Your task to perform on an android device: find which apps use the phone's location Image 0: 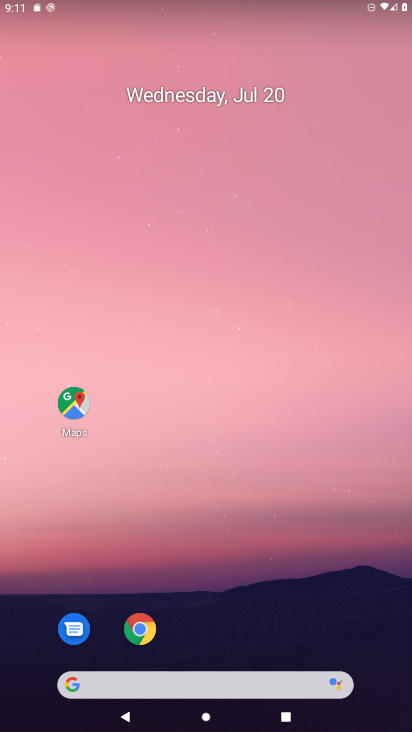
Step 0: drag from (391, 637) to (341, 88)
Your task to perform on an android device: find which apps use the phone's location Image 1: 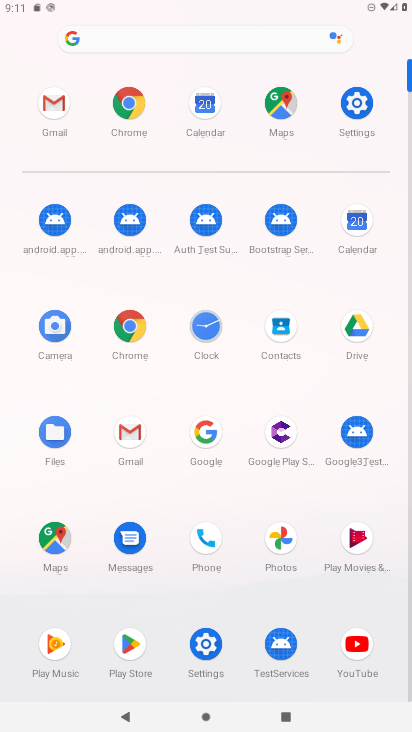
Step 1: click (205, 644)
Your task to perform on an android device: find which apps use the phone's location Image 2: 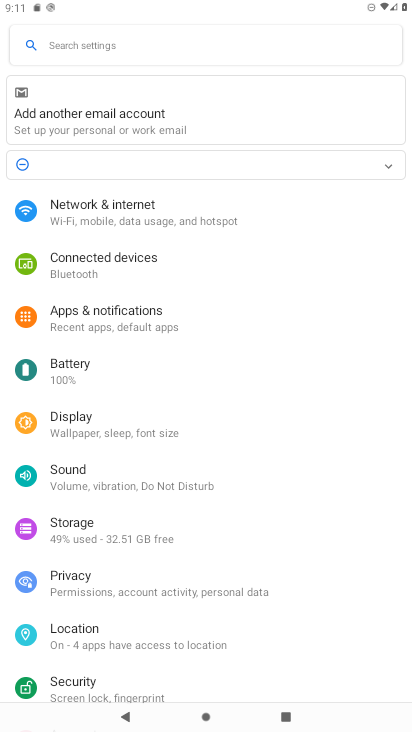
Step 2: drag from (335, 640) to (309, 419)
Your task to perform on an android device: find which apps use the phone's location Image 3: 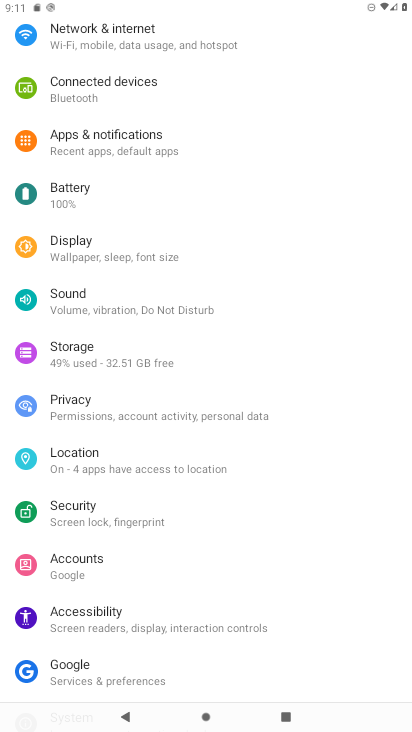
Step 3: click (96, 459)
Your task to perform on an android device: find which apps use the phone's location Image 4: 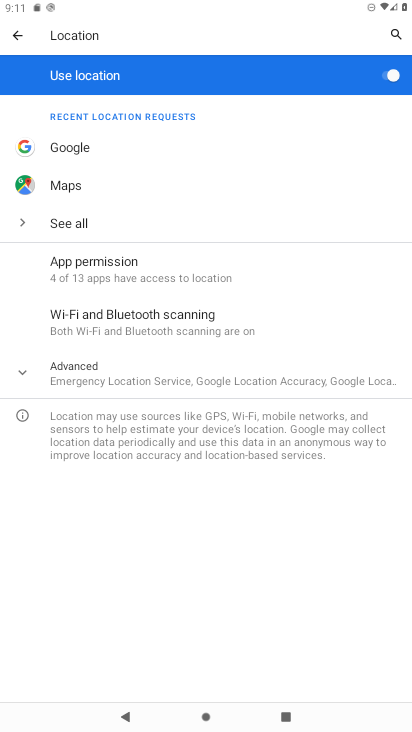
Step 4: click (78, 265)
Your task to perform on an android device: find which apps use the phone's location Image 5: 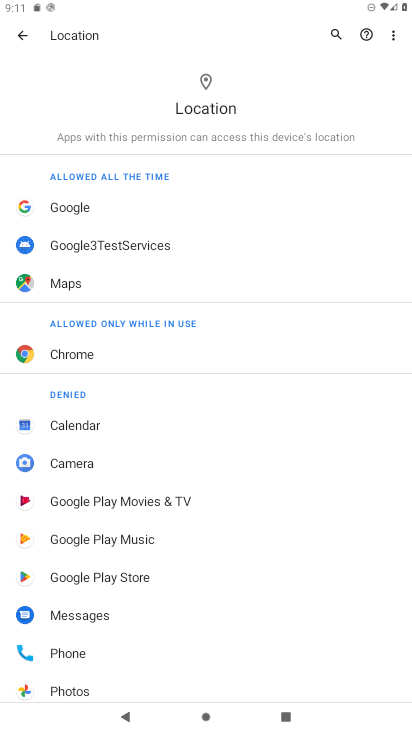
Step 5: drag from (253, 599) to (280, 226)
Your task to perform on an android device: find which apps use the phone's location Image 6: 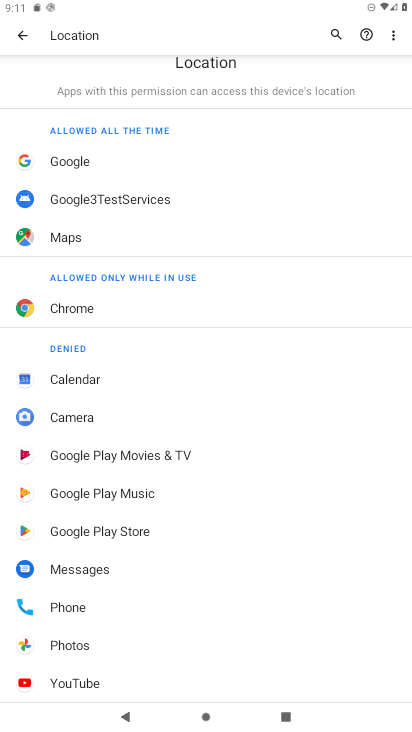
Step 6: click (55, 640)
Your task to perform on an android device: find which apps use the phone's location Image 7: 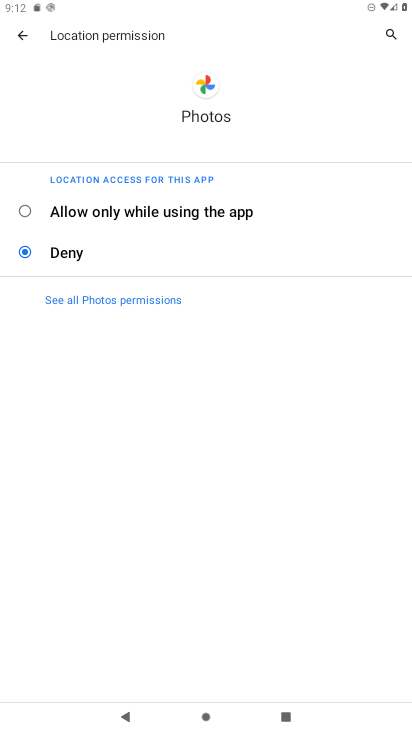
Step 7: task complete